Your task to perform on an android device: Open location settings Image 0: 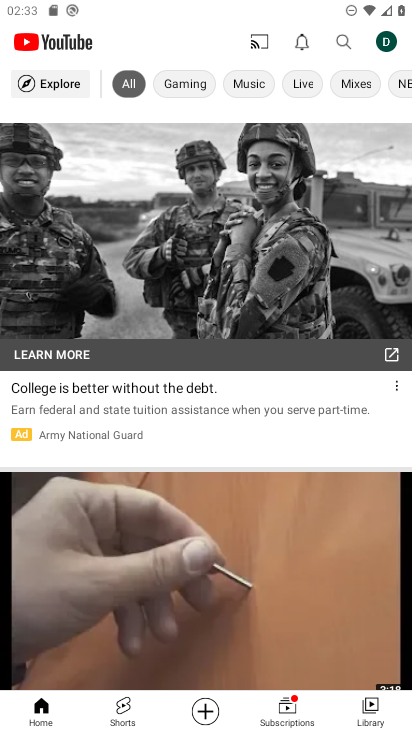
Step 0: press home button
Your task to perform on an android device: Open location settings Image 1: 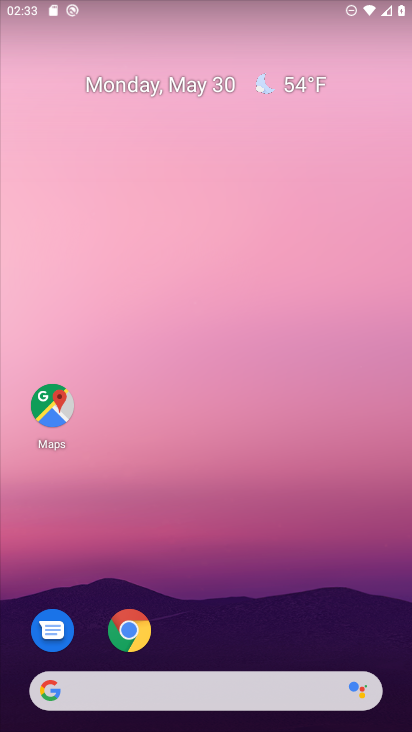
Step 1: drag from (183, 696) to (360, 96)
Your task to perform on an android device: Open location settings Image 2: 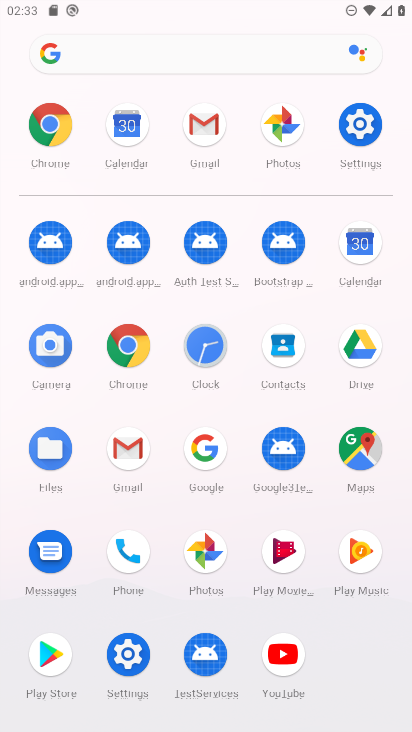
Step 2: click (363, 124)
Your task to perform on an android device: Open location settings Image 3: 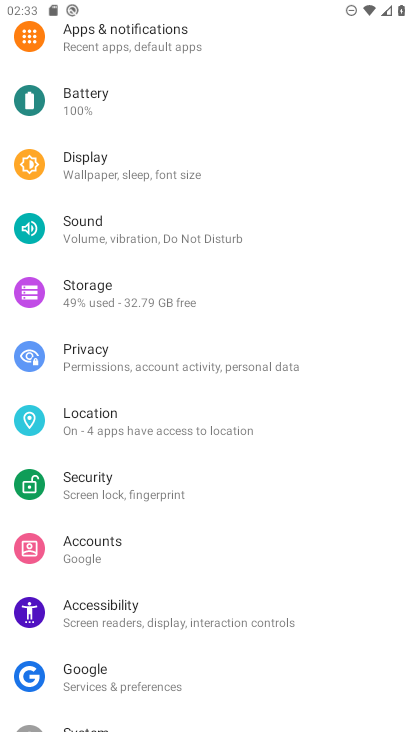
Step 3: click (103, 426)
Your task to perform on an android device: Open location settings Image 4: 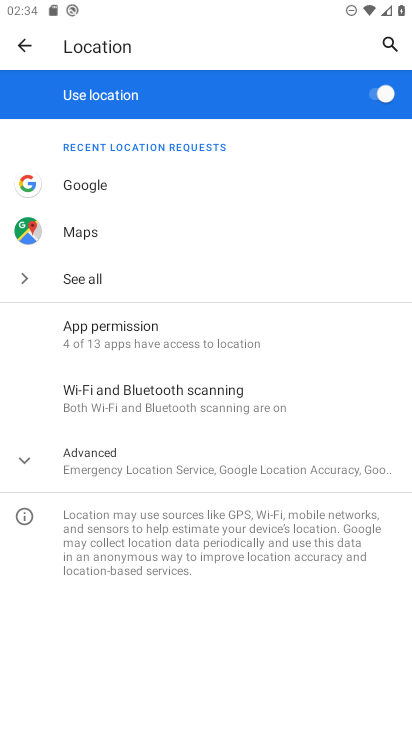
Step 4: task complete